Your task to perform on an android device: Open battery settings Image 0: 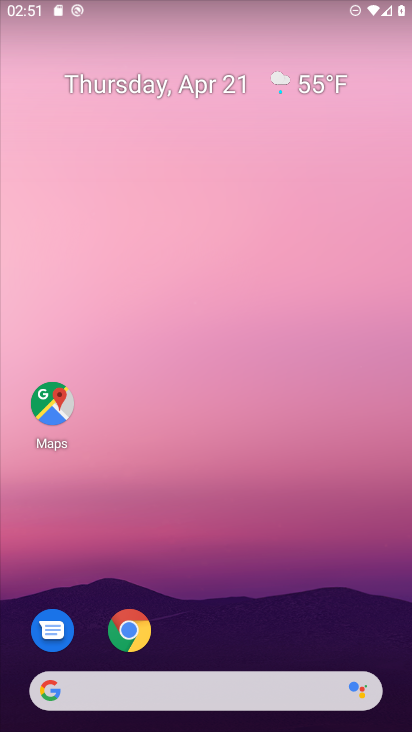
Step 0: drag from (321, 651) to (279, 224)
Your task to perform on an android device: Open battery settings Image 1: 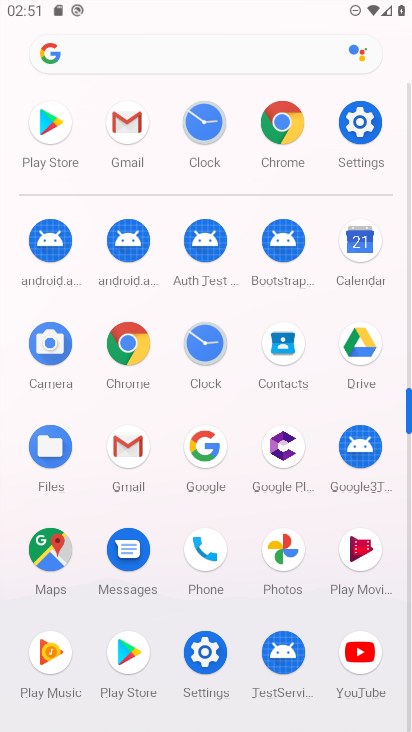
Step 1: click (371, 139)
Your task to perform on an android device: Open battery settings Image 2: 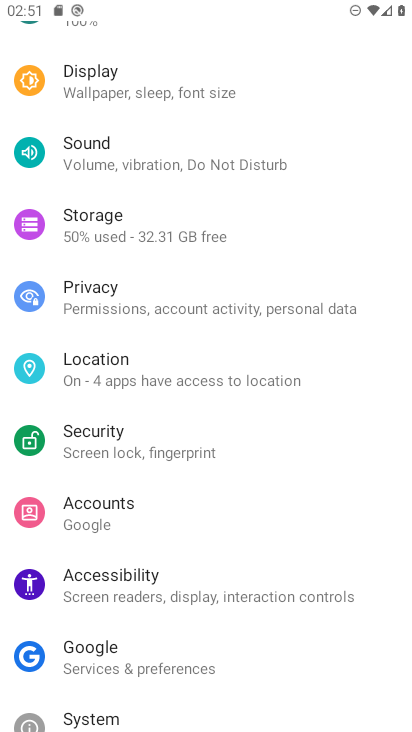
Step 2: drag from (260, 236) to (253, 427)
Your task to perform on an android device: Open battery settings Image 3: 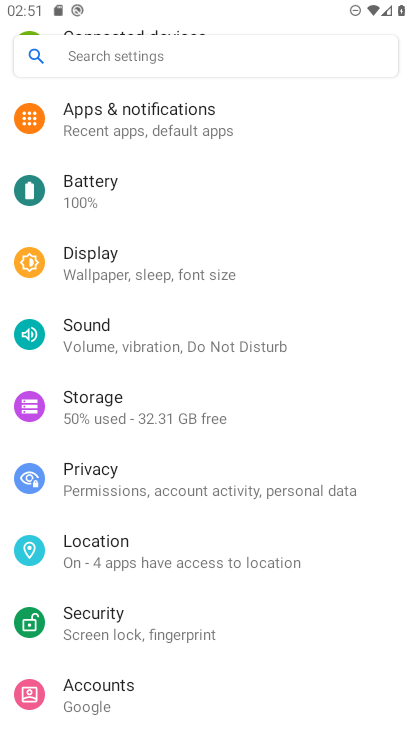
Step 3: click (211, 191)
Your task to perform on an android device: Open battery settings Image 4: 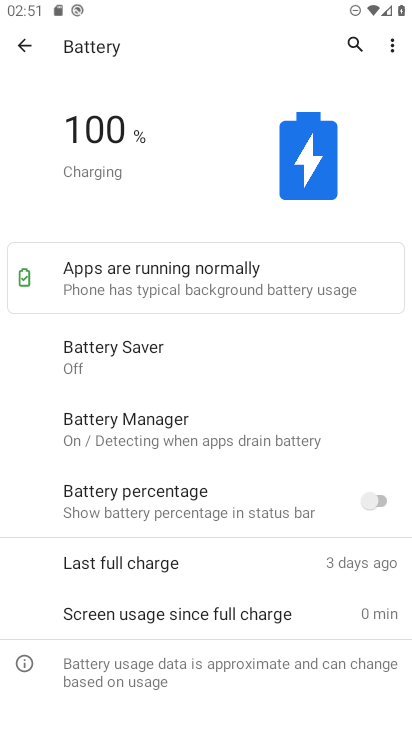
Step 4: task complete